Your task to perform on an android device: Do I have any events tomorrow? Image 0: 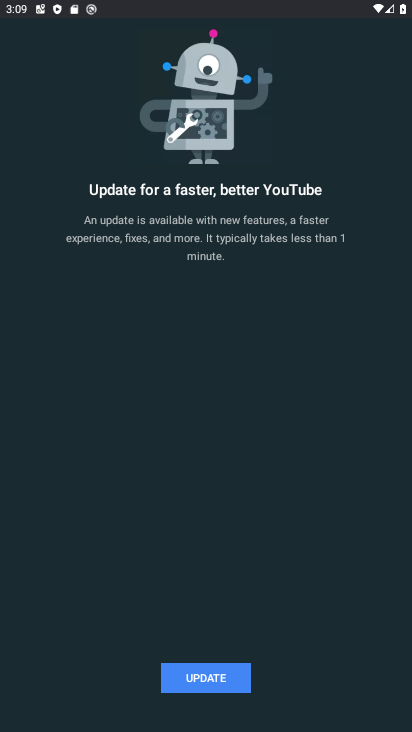
Step 0: press home button
Your task to perform on an android device: Do I have any events tomorrow? Image 1: 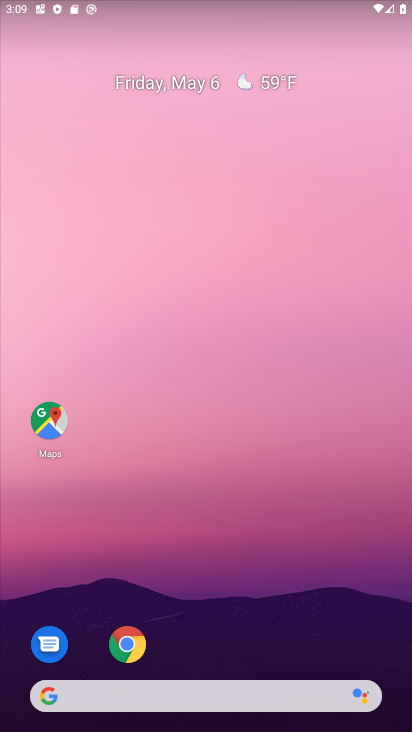
Step 1: drag from (238, 541) to (251, 12)
Your task to perform on an android device: Do I have any events tomorrow? Image 2: 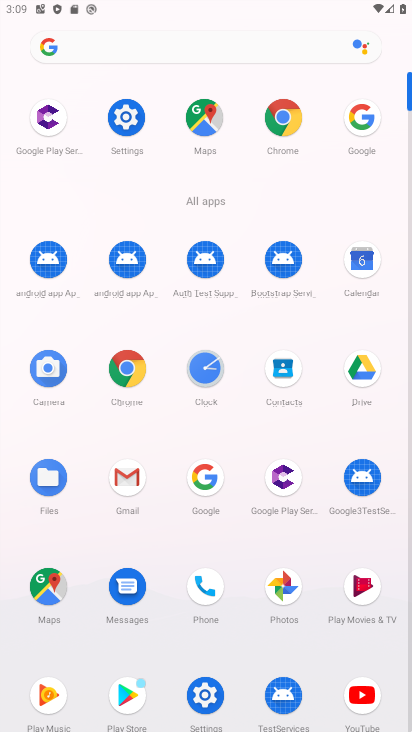
Step 2: click (362, 259)
Your task to perform on an android device: Do I have any events tomorrow? Image 3: 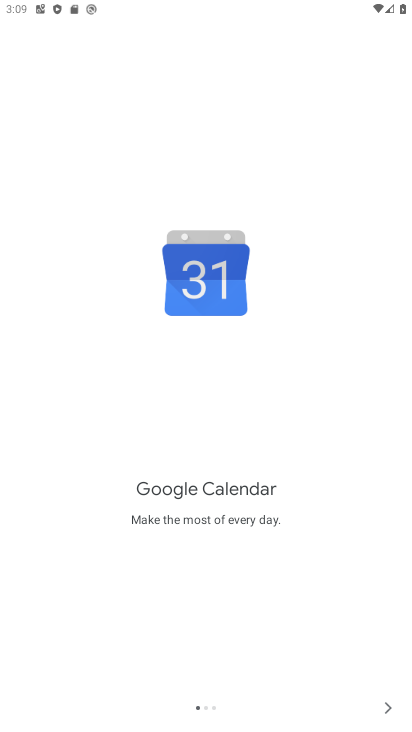
Step 3: click (392, 704)
Your task to perform on an android device: Do I have any events tomorrow? Image 4: 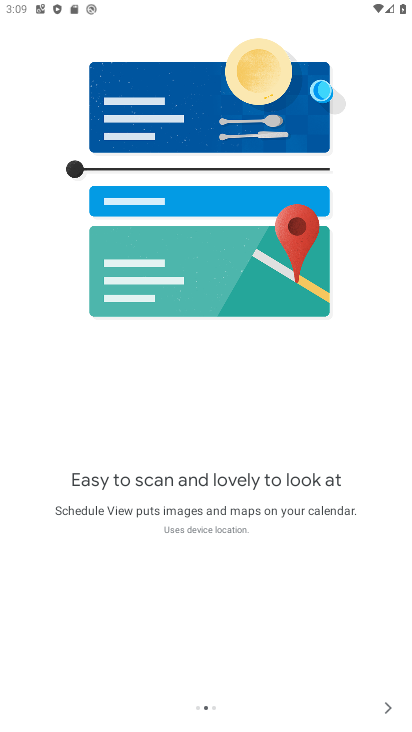
Step 4: click (392, 704)
Your task to perform on an android device: Do I have any events tomorrow? Image 5: 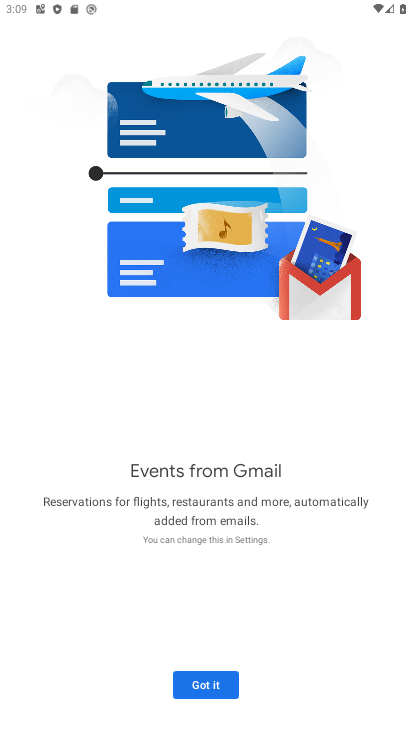
Step 5: click (206, 686)
Your task to perform on an android device: Do I have any events tomorrow? Image 6: 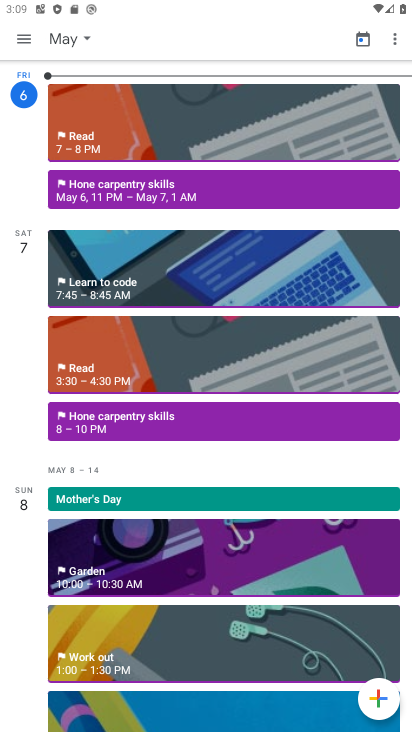
Step 6: click (81, 425)
Your task to perform on an android device: Do I have any events tomorrow? Image 7: 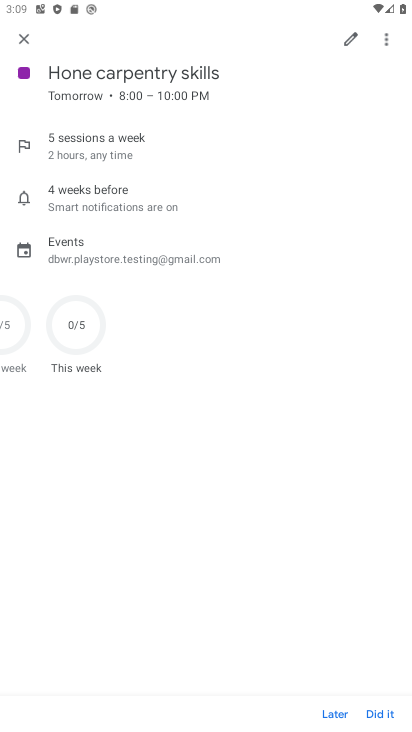
Step 7: task complete